Your task to perform on an android device: Go to eBay Image 0: 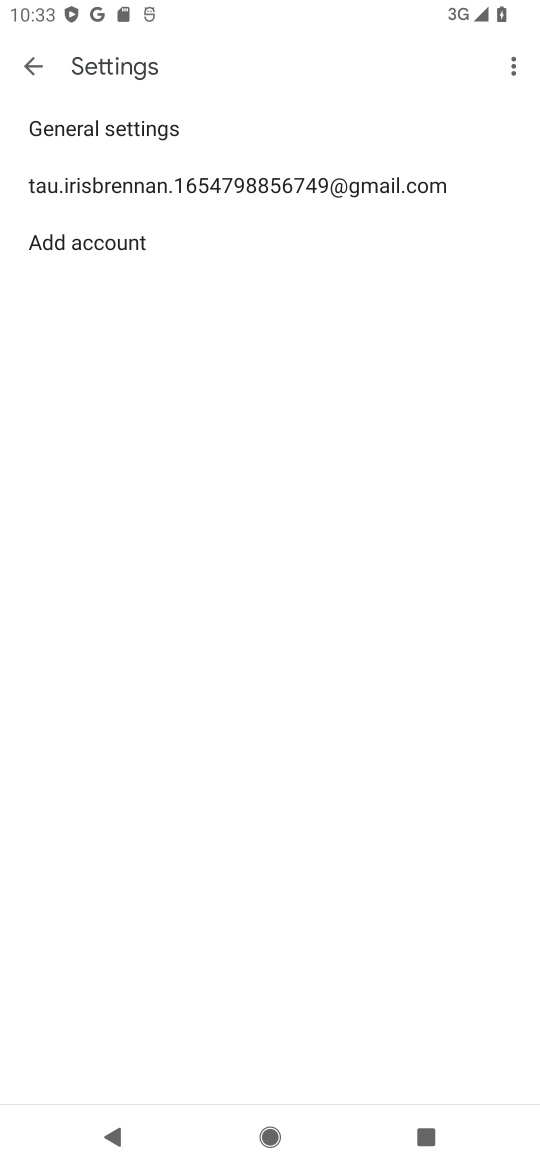
Step 0: press home button
Your task to perform on an android device: Go to eBay Image 1: 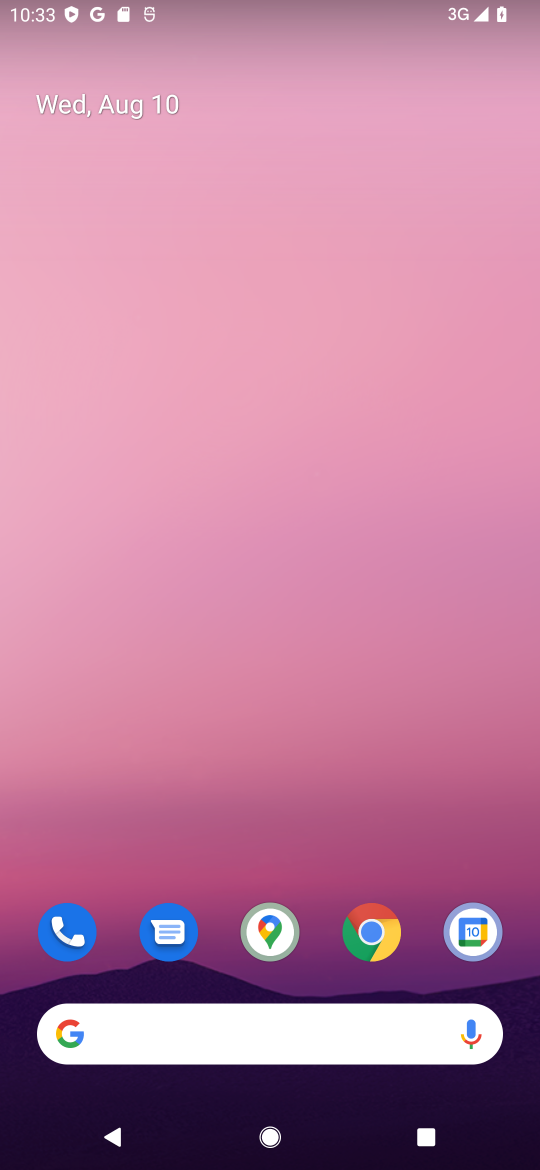
Step 1: click (381, 929)
Your task to perform on an android device: Go to eBay Image 2: 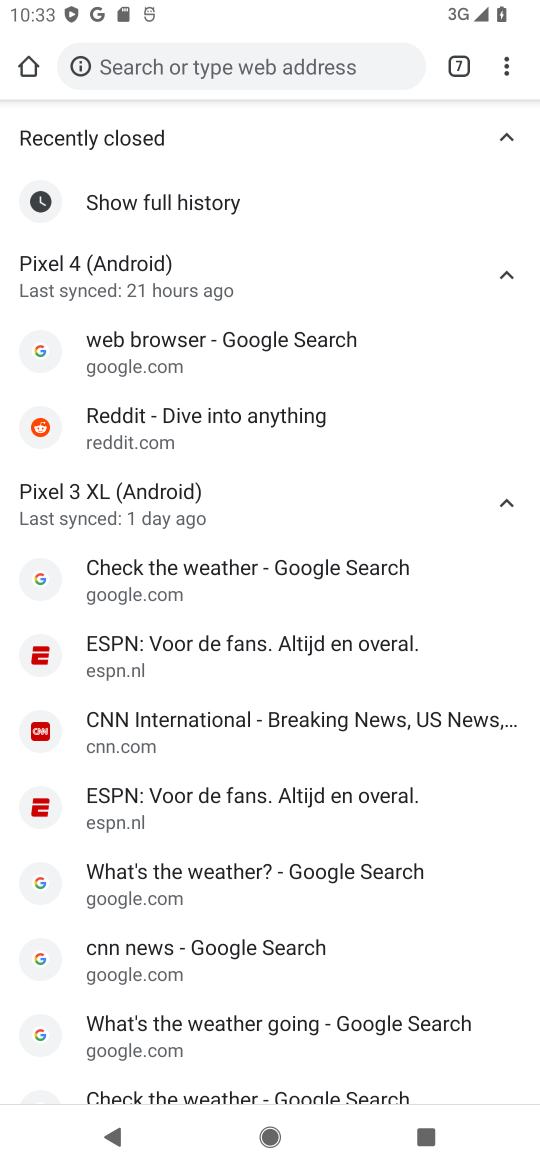
Step 2: click (482, 60)
Your task to perform on an android device: Go to eBay Image 3: 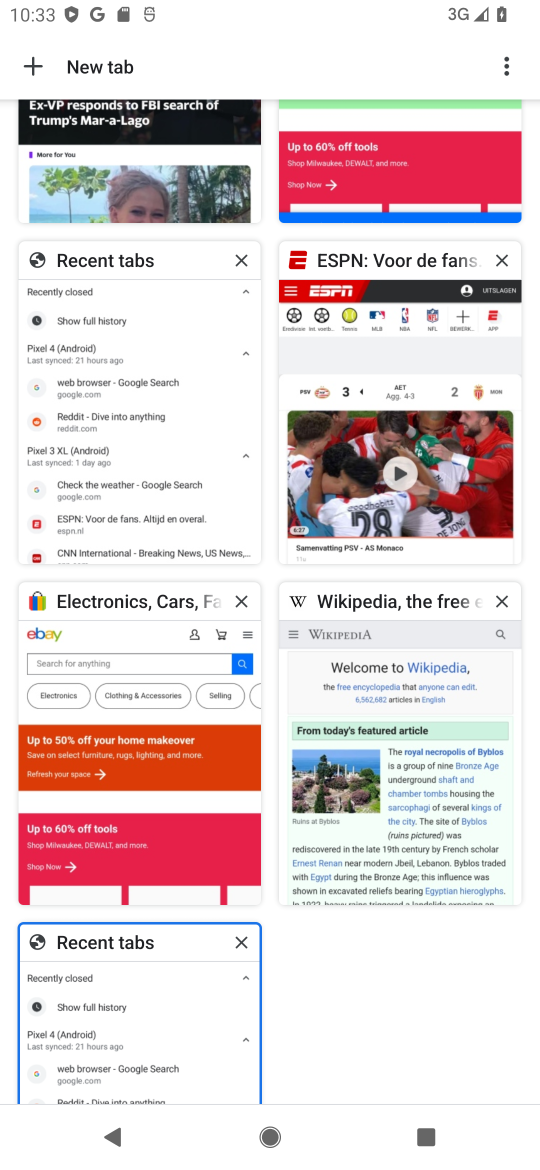
Step 3: click (34, 58)
Your task to perform on an android device: Go to eBay Image 4: 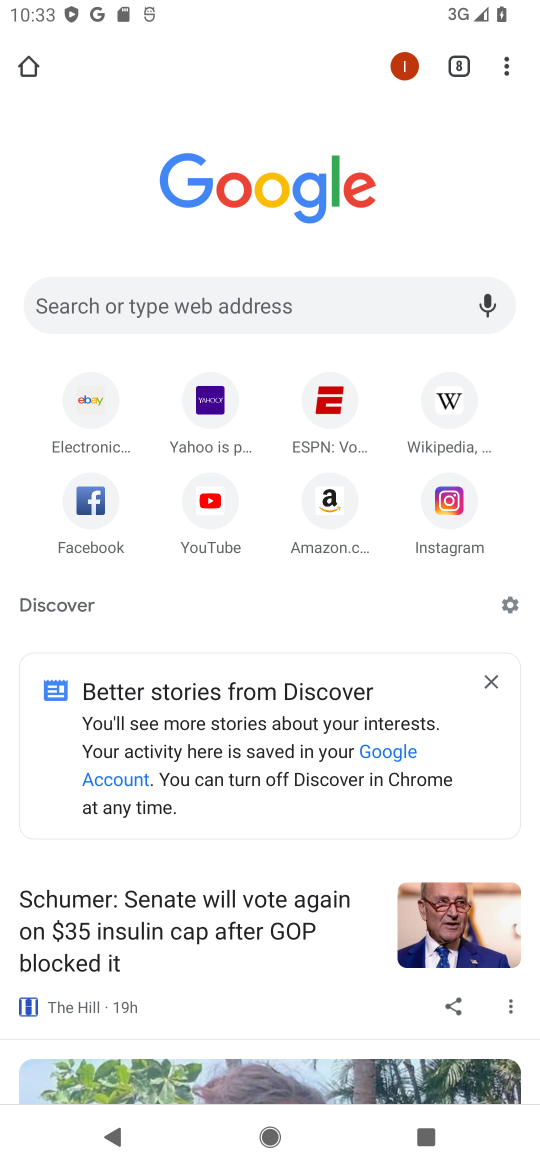
Step 4: click (82, 392)
Your task to perform on an android device: Go to eBay Image 5: 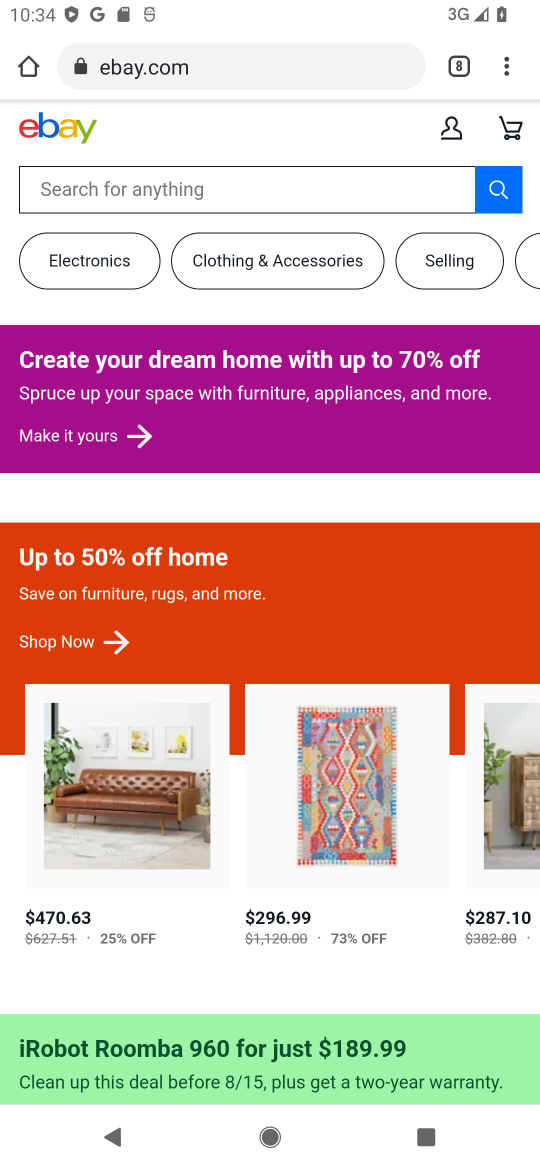
Step 5: task complete